Your task to perform on an android device: Go to Yahoo.com Image 0: 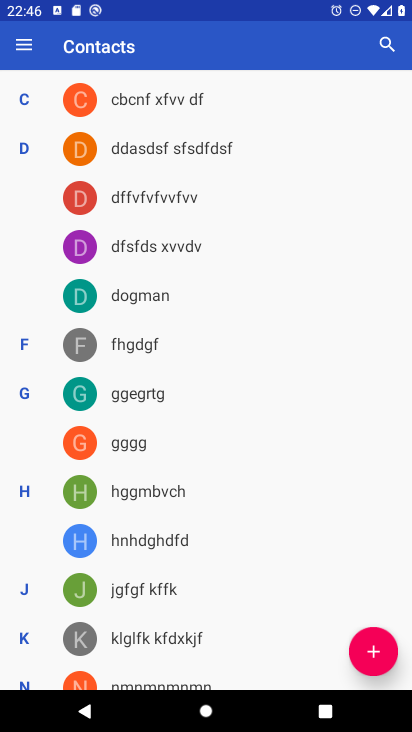
Step 0: press home button
Your task to perform on an android device: Go to Yahoo.com Image 1: 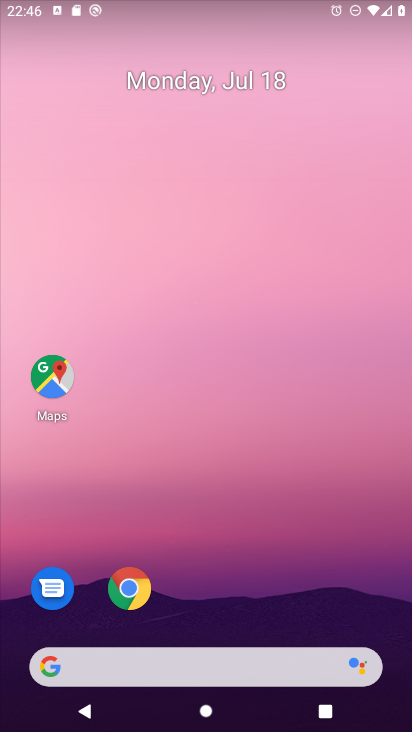
Step 1: click (130, 582)
Your task to perform on an android device: Go to Yahoo.com Image 2: 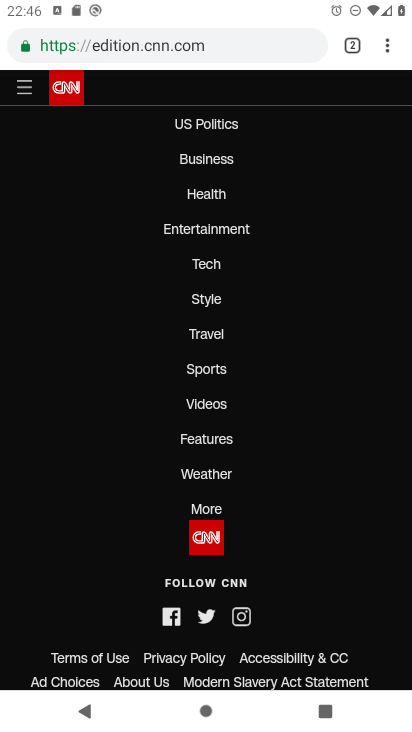
Step 2: click (240, 46)
Your task to perform on an android device: Go to Yahoo.com Image 3: 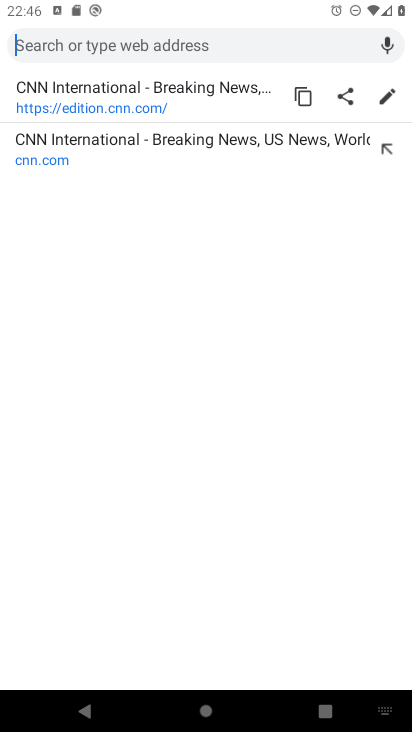
Step 3: type "yahoo.com"
Your task to perform on an android device: Go to Yahoo.com Image 4: 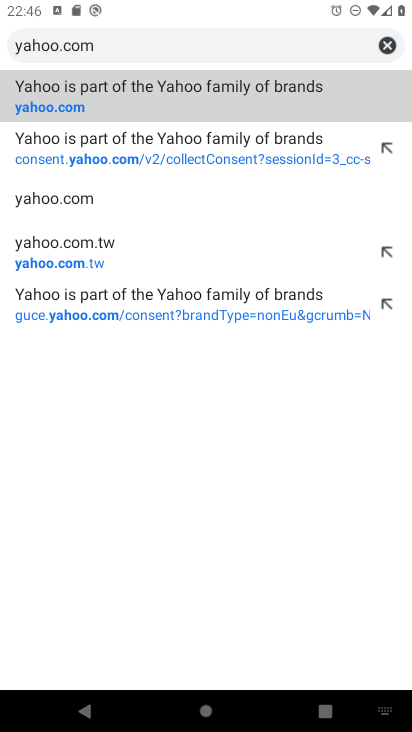
Step 4: click (78, 83)
Your task to perform on an android device: Go to Yahoo.com Image 5: 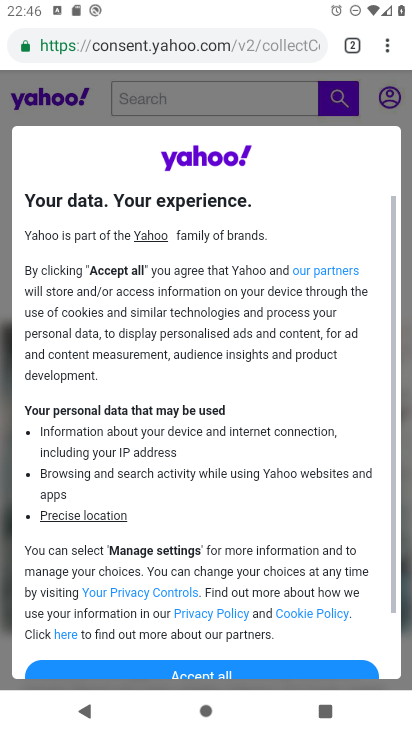
Step 5: click (204, 664)
Your task to perform on an android device: Go to Yahoo.com Image 6: 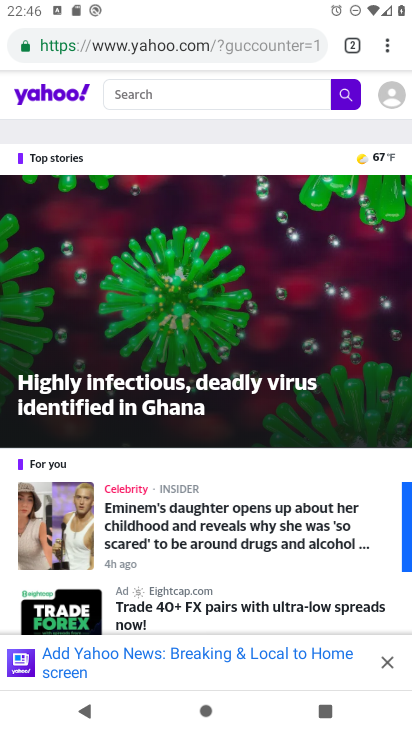
Step 6: task complete